Your task to perform on an android device: check google app version Image 0: 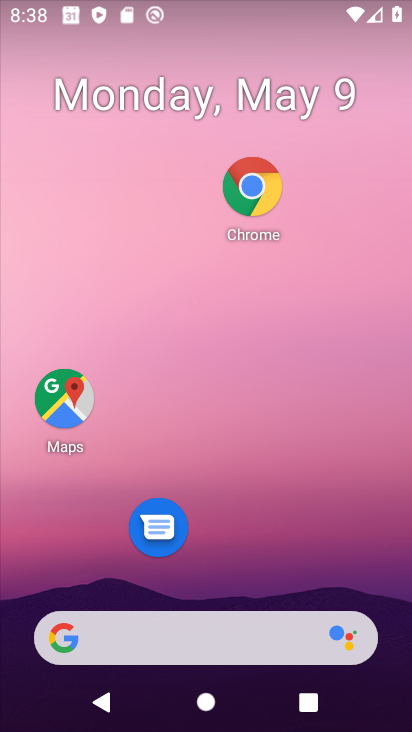
Step 0: press home button
Your task to perform on an android device: check google app version Image 1: 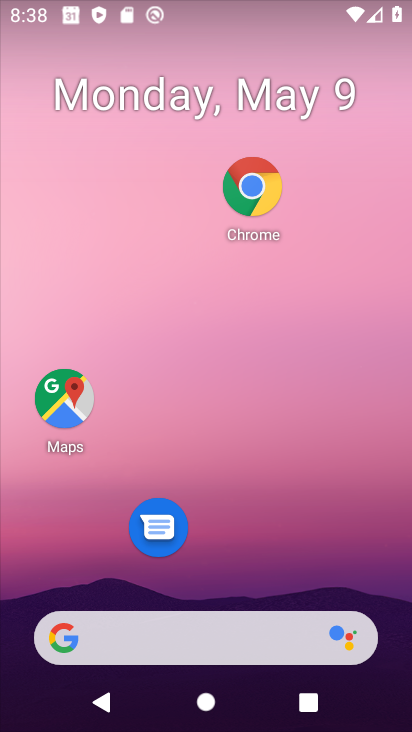
Step 1: drag from (216, 577) to (237, 11)
Your task to perform on an android device: check google app version Image 2: 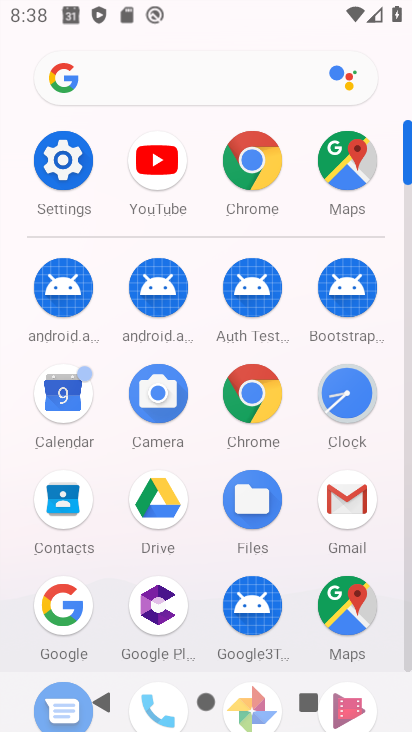
Step 2: click (57, 602)
Your task to perform on an android device: check google app version Image 3: 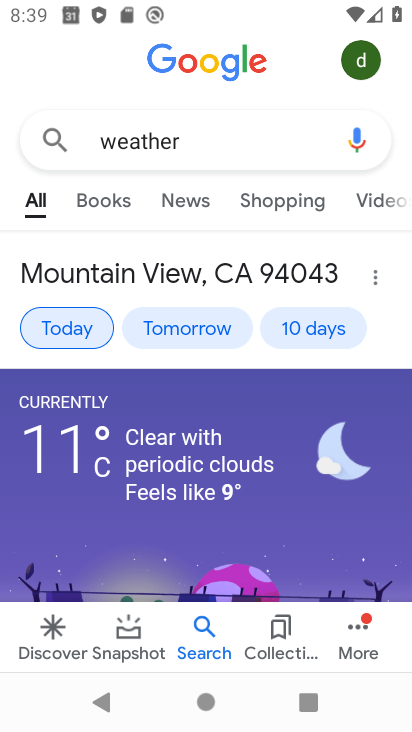
Step 3: press home button
Your task to perform on an android device: check google app version Image 4: 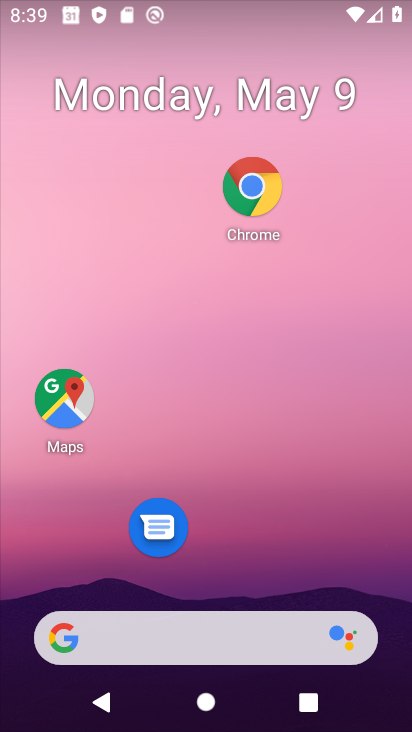
Step 4: drag from (212, 547) to (300, 2)
Your task to perform on an android device: check google app version Image 5: 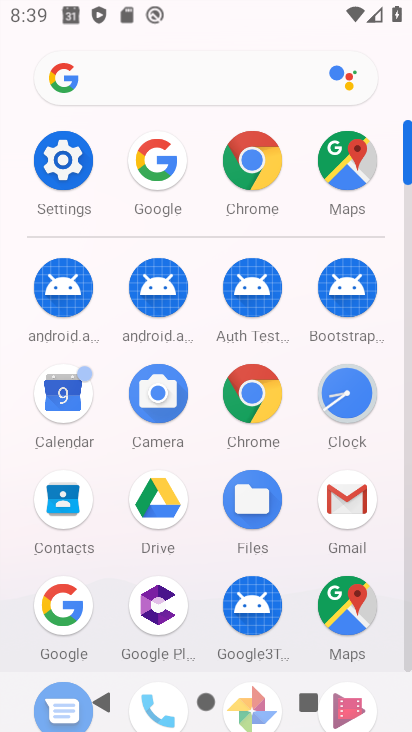
Step 5: click (58, 601)
Your task to perform on an android device: check google app version Image 6: 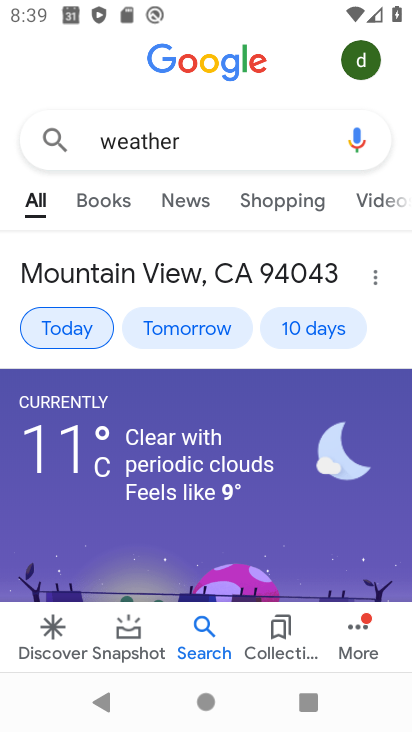
Step 6: press back button
Your task to perform on an android device: check google app version Image 7: 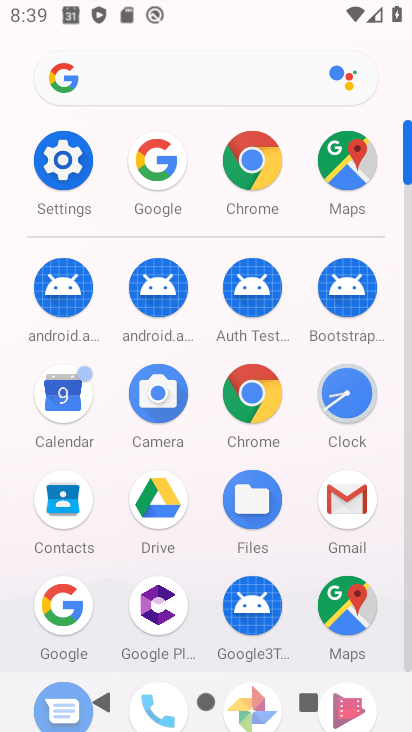
Step 7: click (58, 604)
Your task to perform on an android device: check google app version Image 8: 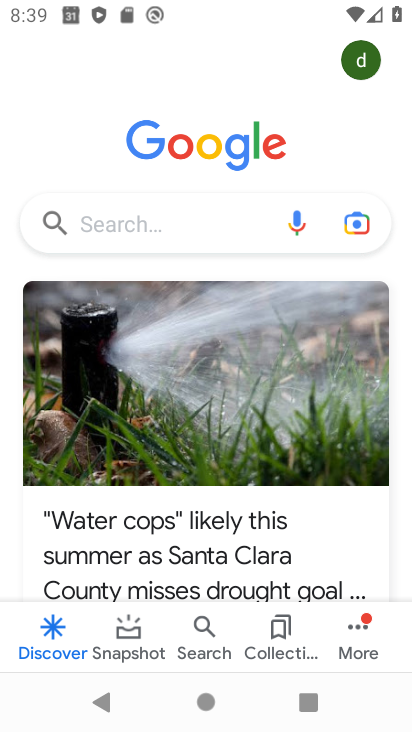
Step 8: task complete